Your task to perform on an android device: open the mobile data screen to see how much data has been used Image 0: 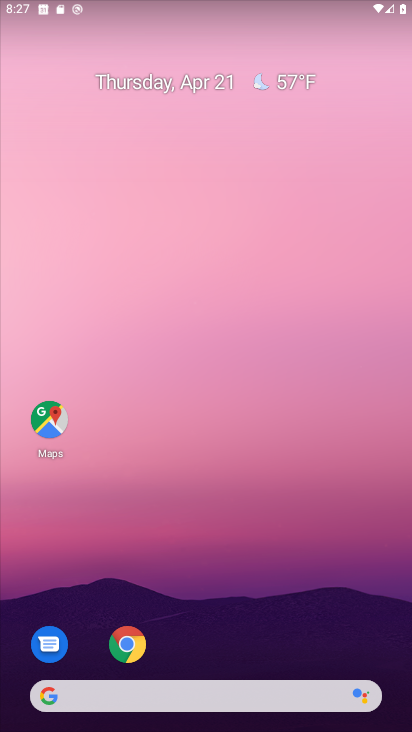
Step 0: drag from (257, 635) to (279, 99)
Your task to perform on an android device: open the mobile data screen to see how much data has been used Image 1: 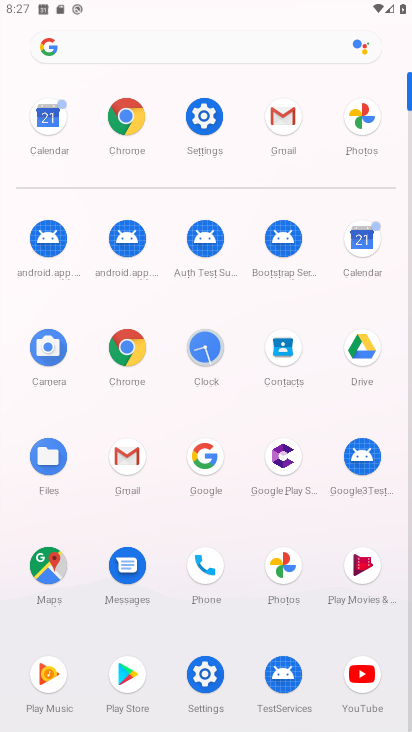
Step 1: click (207, 108)
Your task to perform on an android device: open the mobile data screen to see how much data has been used Image 2: 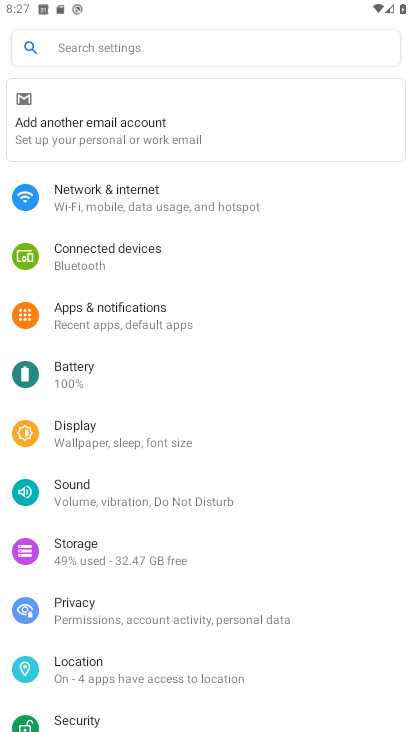
Step 2: click (207, 199)
Your task to perform on an android device: open the mobile data screen to see how much data has been used Image 3: 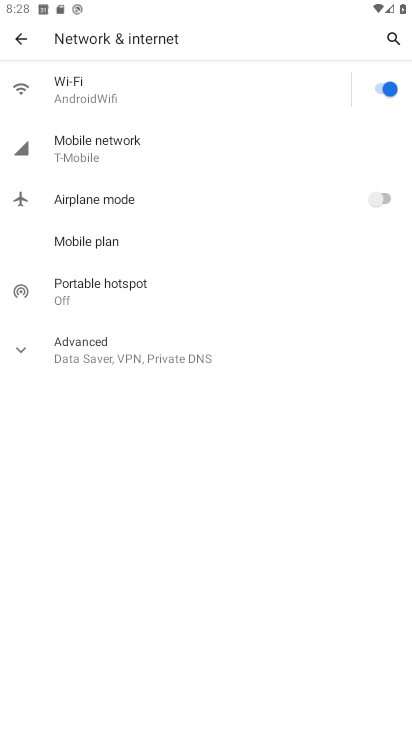
Step 3: click (234, 155)
Your task to perform on an android device: open the mobile data screen to see how much data has been used Image 4: 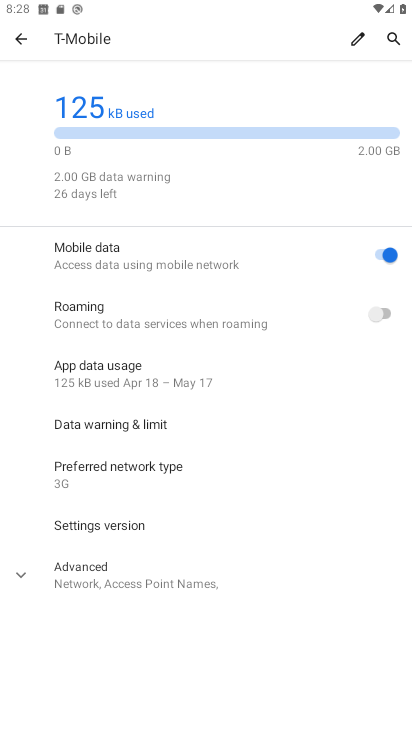
Step 4: task complete